Your task to perform on an android device: Open a new Chrome incognito tab Image 0: 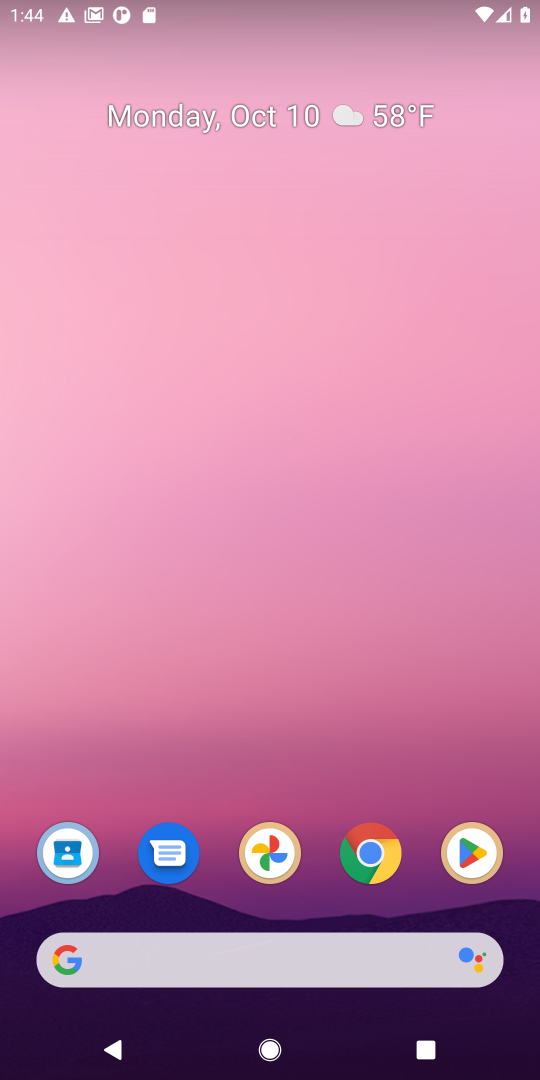
Step 0: click (377, 849)
Your task to perform on an android device: Open a new Chrome incognito tab Image 1: 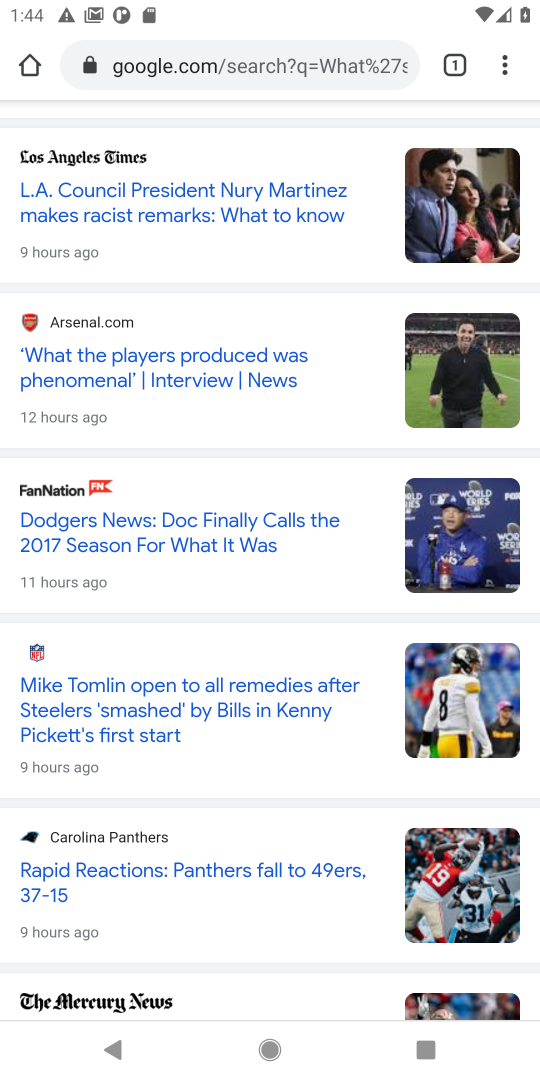
Step 1: click (508, 63)
Your task to perform on an android device: Open a new Chrome incognito tab Image 2: 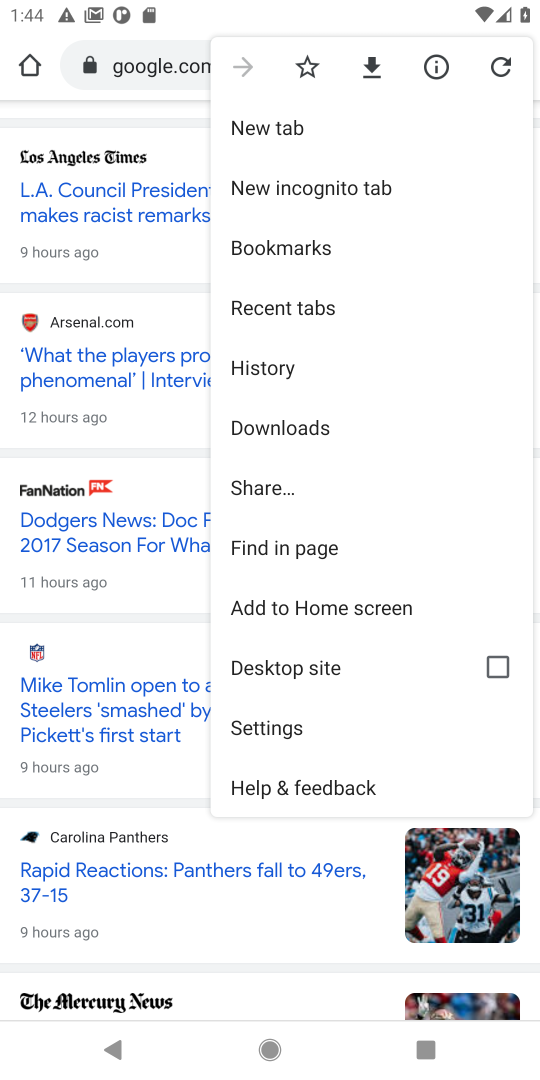
Step 2: click (340, 193)
Your task to perform on an android device: Open a new Chrome incognito tab Image 3: 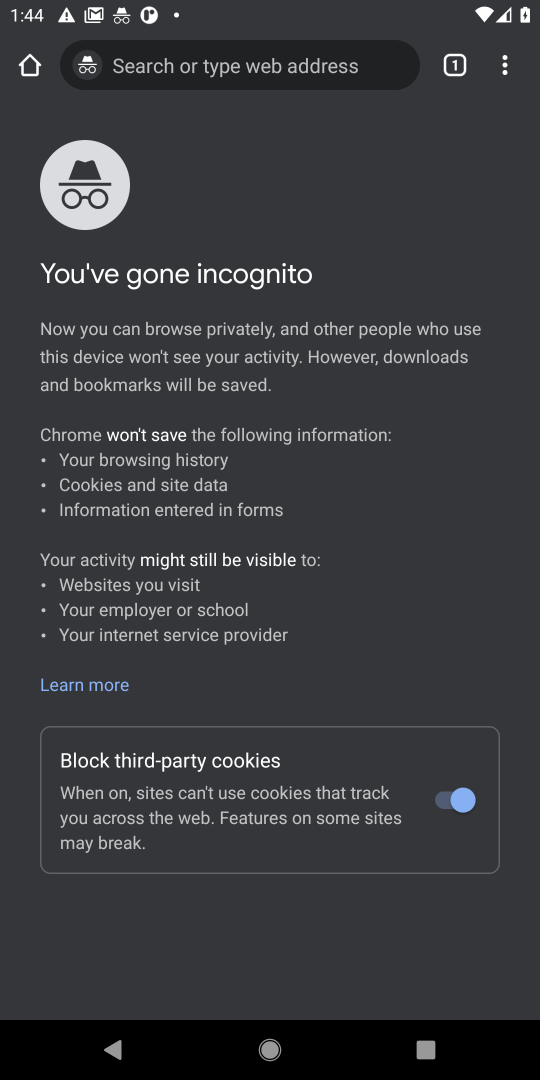
Step 3: task complete